Your task to perform on an android device: Go to calendar. Show me events next week Image 0: 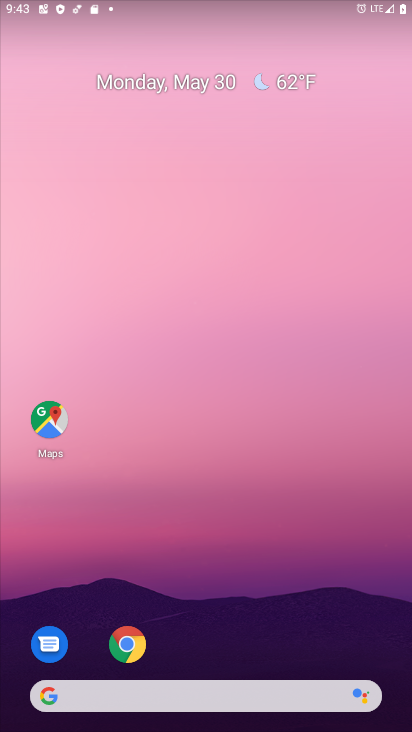
Step 0: drag from (389, 652) to (316, 118)
Your task to perform on an android device: Go to calendar. Show me events next week Image 1: 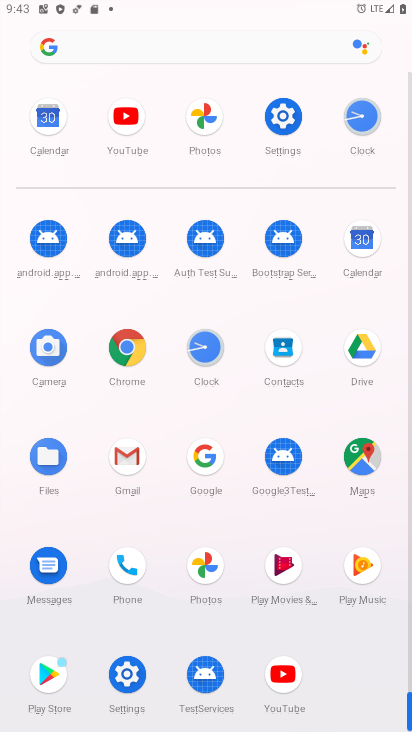
Step 1: click (361, 237)
Your task to perform on an android device: Go to calendar. Show me events next week Image 2: 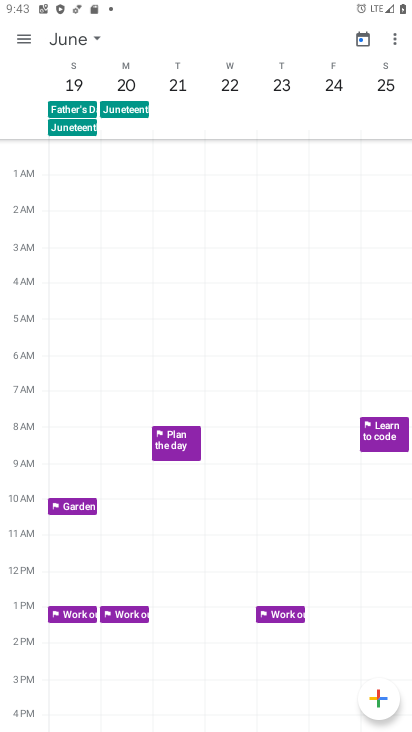
Step 2: click (96, 40)
Your task to perform on an android device: Go to calendar. Show me events next week Image 3: 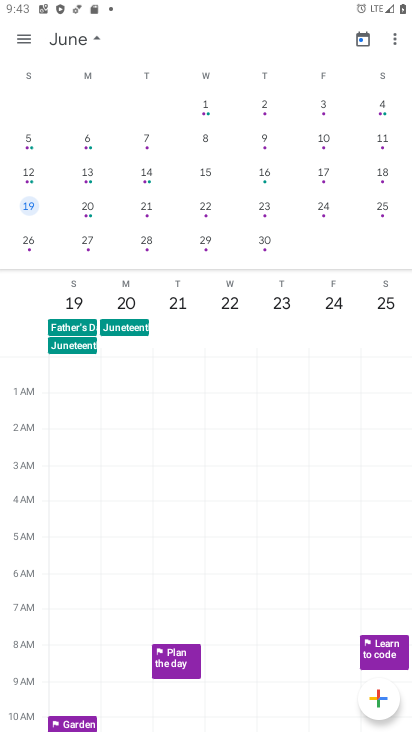
Step 3: drag from (45, 174) to (256, 167)
Your task to perform on an android device: Go to calendar. Show me events next week Image 4: 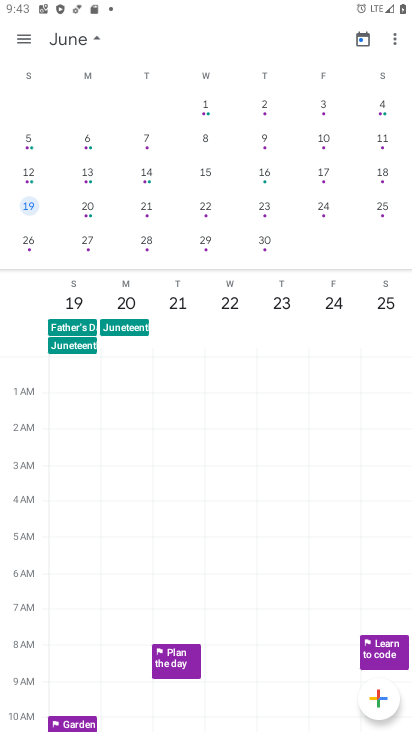
Step 4: drag from (26, 173) to (323, 61)
Your task to perform on an android device: Go to calendar. Show me events next week Image 5: 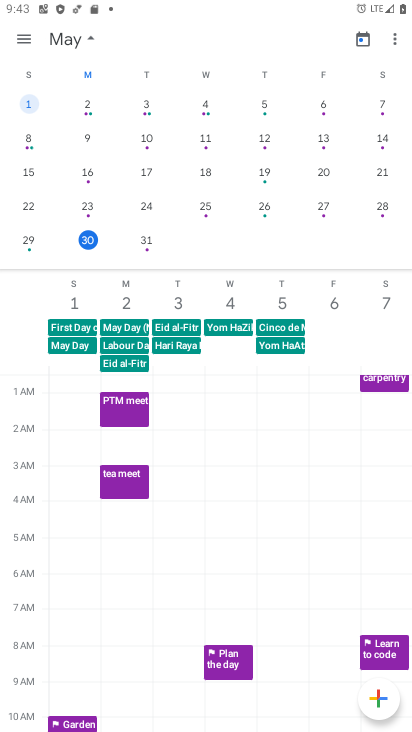
Step 5: drag from (383, 210) to (22, 185)
Your task to perform on an android device: Go to calendar. Show me events next week Image 6: 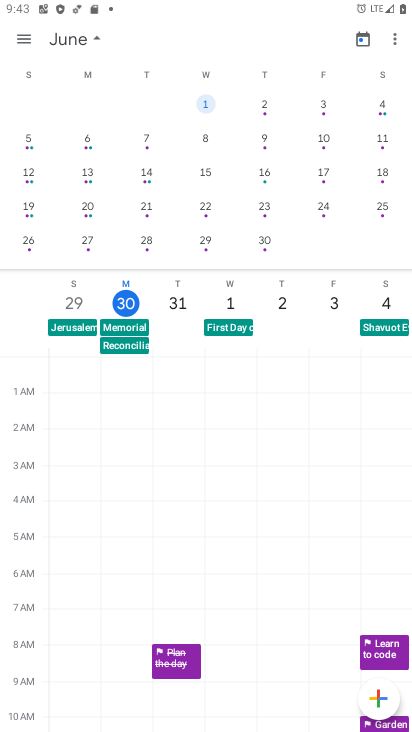
Step 6: click (24, 139)
Your task to perform on an android device: Go to calendar. Show me events next week Image 7: 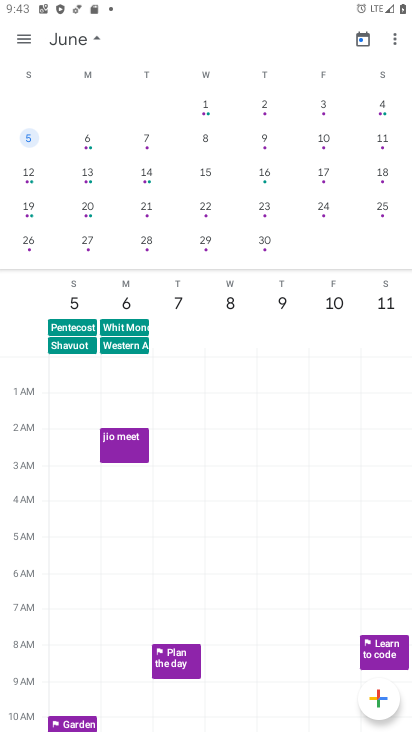
Step 7: task complete